Your task to perform on an android device: allow cookies in the chrome app Image 0: 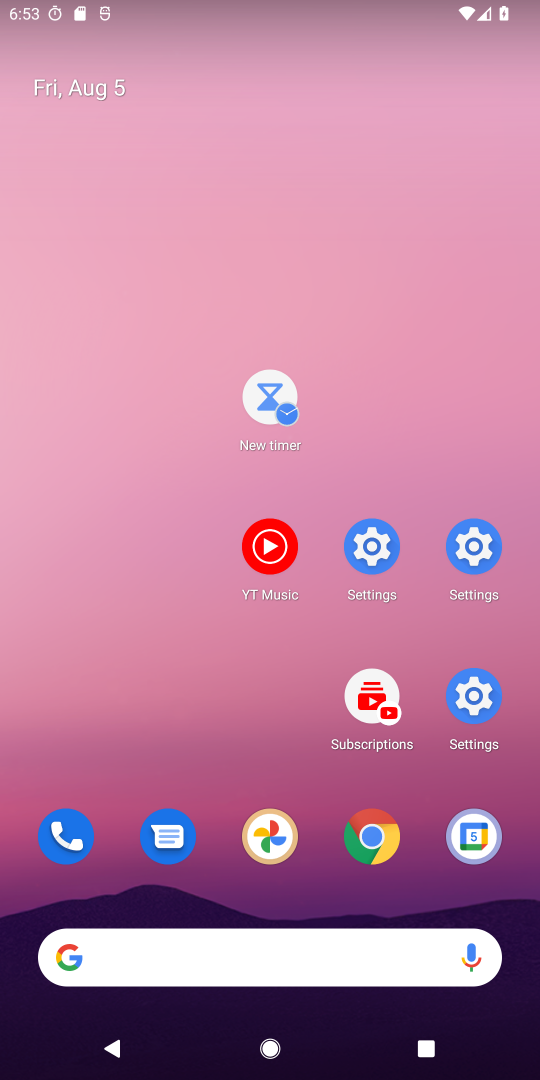
Step 0: click (73, 297)
Your task to perform on an android device: allow cookies in the chrome app Image 1: 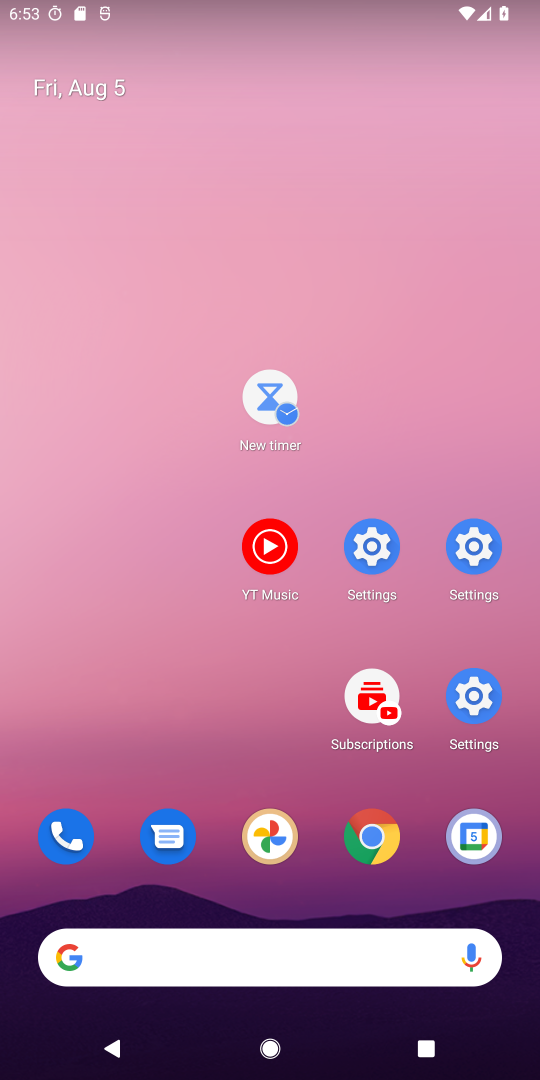
Step 1: drag from (266, 805) to (105, 255)
Your task to perform on an android device: allow cookies in the chrome app Image 2: 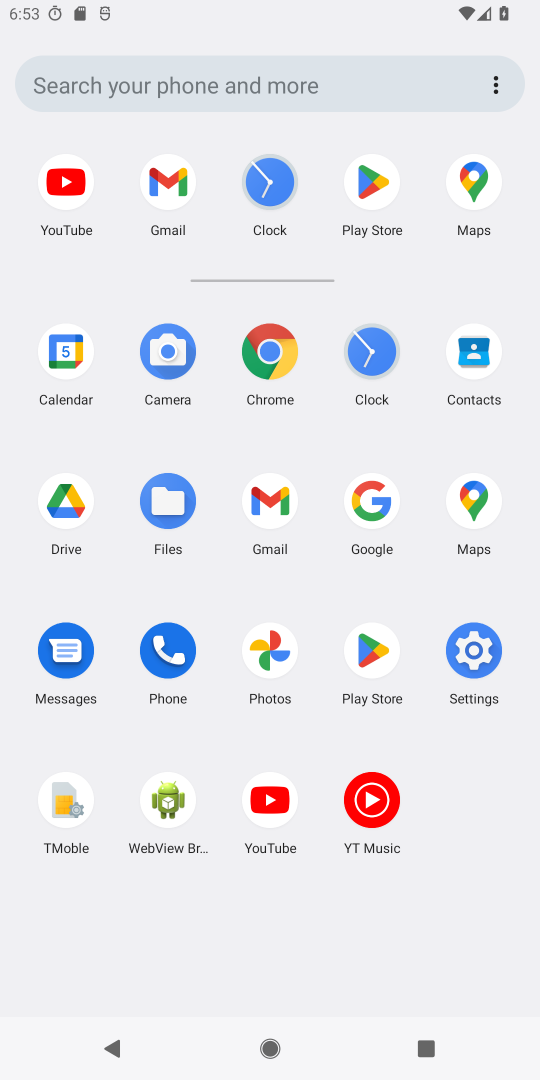
Step 2: click (271, 345)
Your task to perform on an android device: allow cookies in the chrome app Image 3: 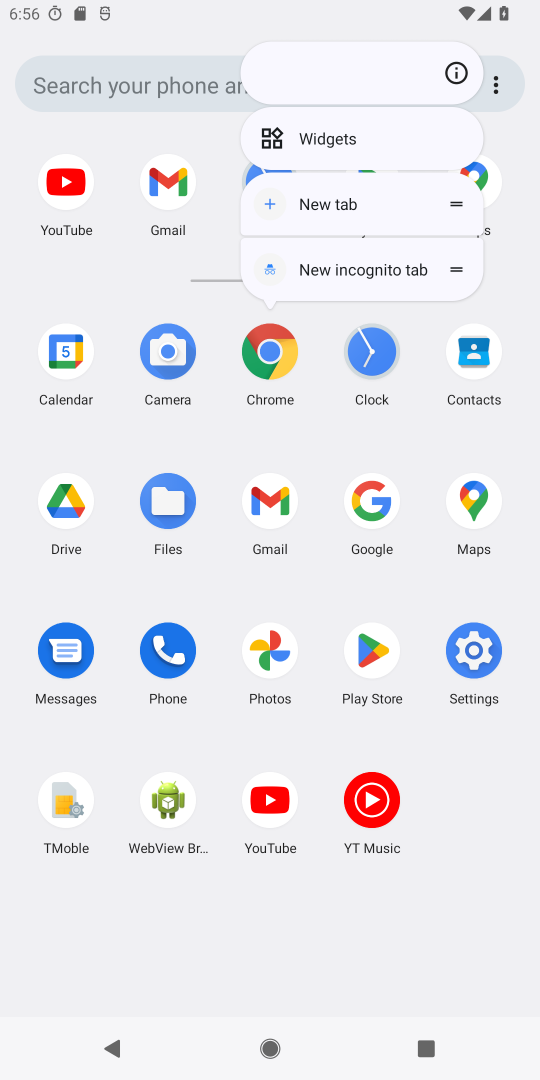
Step 3: drag from (207, 138) to (218, 46)
Your task to perform on an android device: allow cookies in the chrome app Image 4: 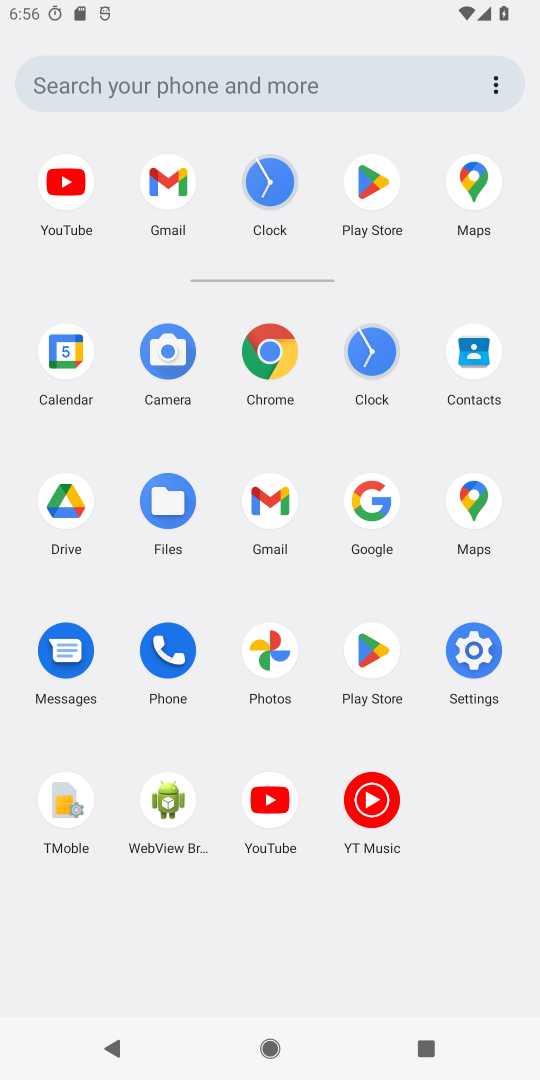
Step 4: click (217, 48)
Your task to perform on an android device: allow cookies in the chrome app Image 5: 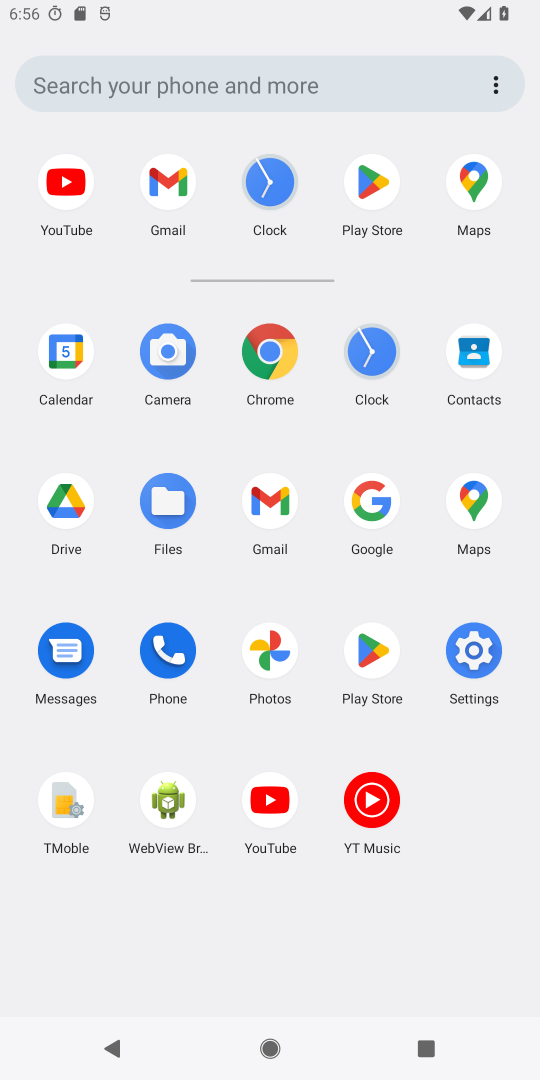
Step 5: click (296, 357)
Your task to perform on an android device: allow cookies in the chrome app Image 6: 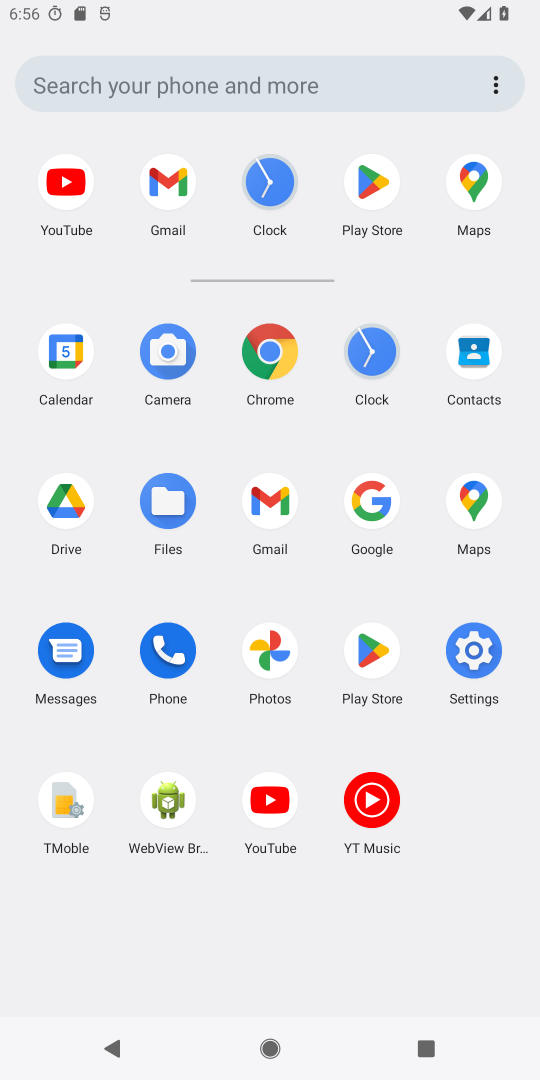
Step 6: click (279, 356)
Your task to perform on an android device: allow cookies in the chrome app Image 7: 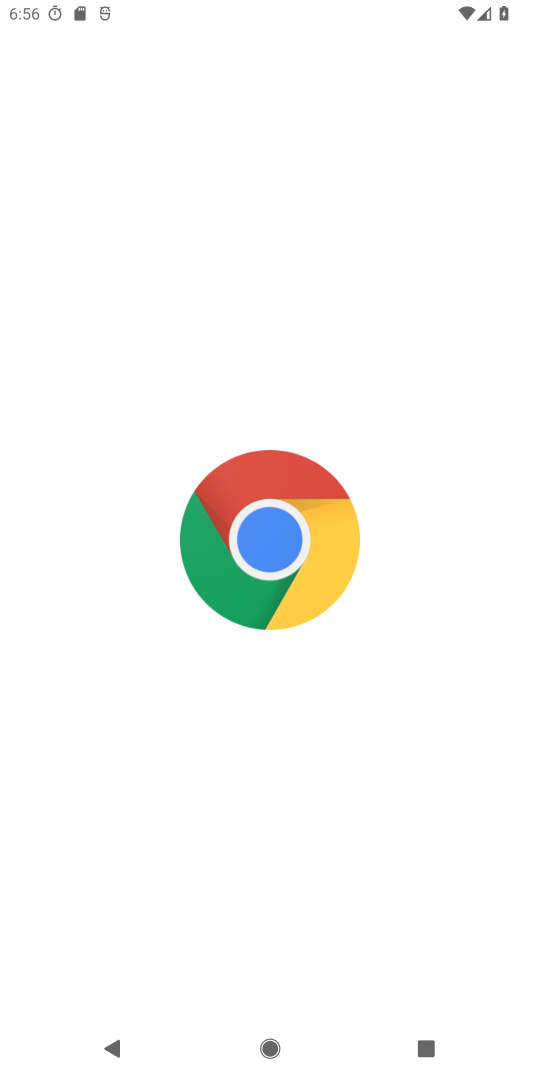
Step 7: click (270, 362)
Your task to perform on an android device: allow cookies in the chrome app Image 8: 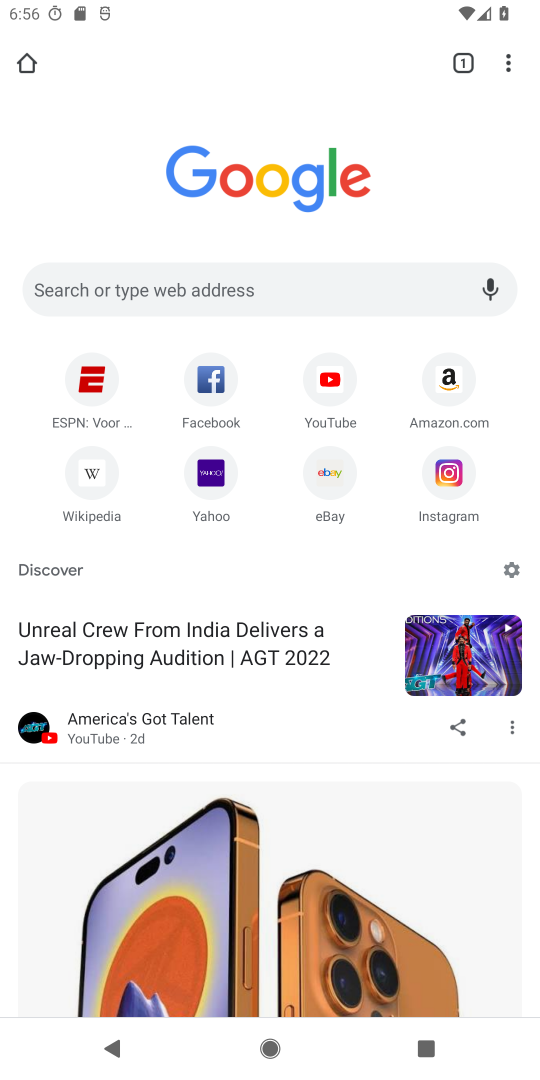
Step 8: drag from (509, 49) to (357, 703)
Your task to perform on an android device: allow cookies in the chrome app Image 9: 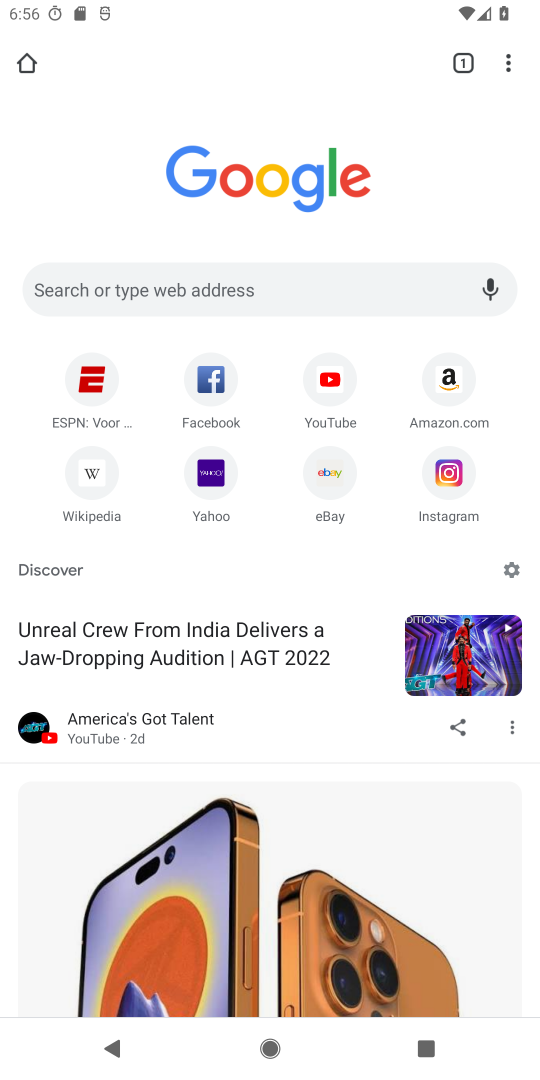
Step 9: drag from (505, 67) to (328, 521)
Your task to perform on an android device: allow cookies in the chrome app Image 10: 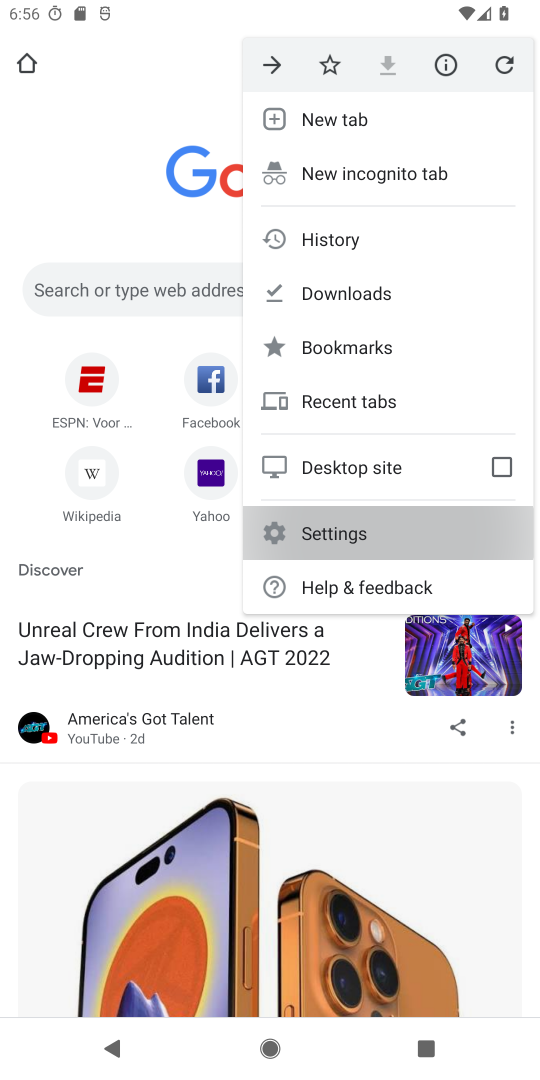
Step 10: click (330, 520)
Your task to perform on an android device: allow cookies in the chrome app Image 11: 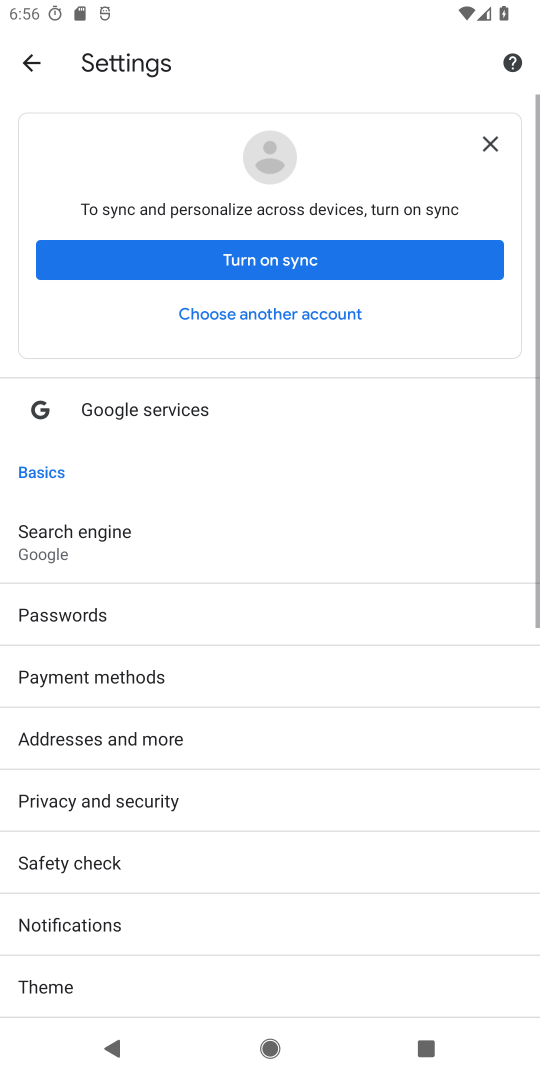
Step 11: drag from (234, 763) to (120, 248)
Your task to perform on an android device: allow cookies in the chrome app Image 12: 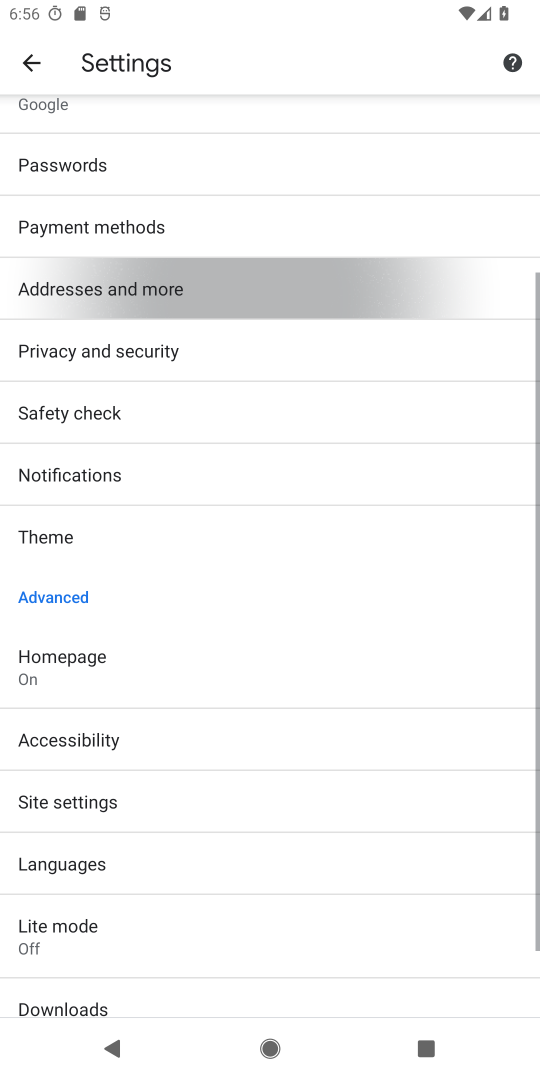
Step 12: drag from (135, 843) to (150, 470)
Your task to perform on an android device: allow cookies in the chrome app Image 13: 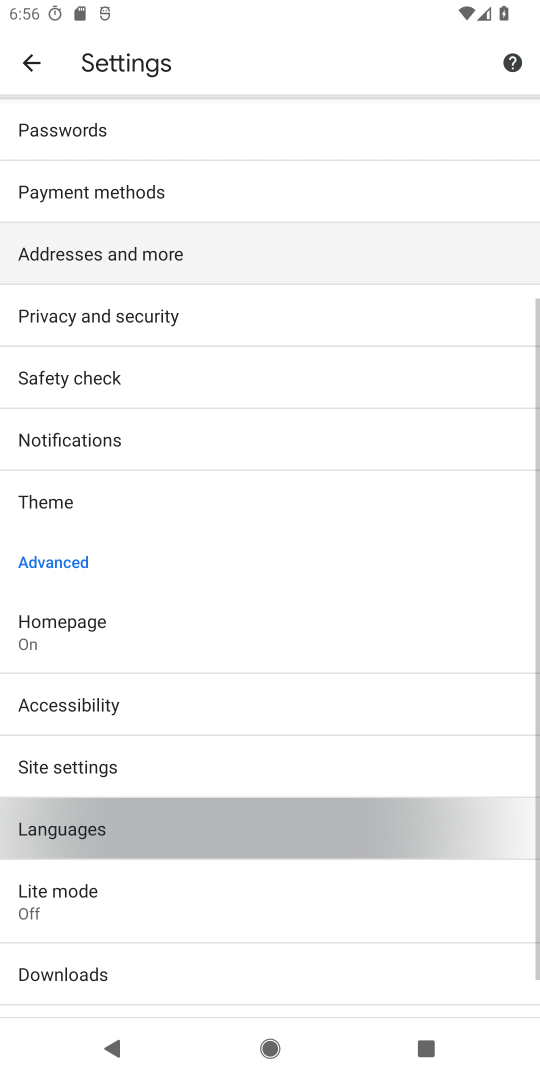
Step 13: drag from (219, 898) to (237, 554)
Your task to perform on an android device: allow cookies in the chrome app Image 14: 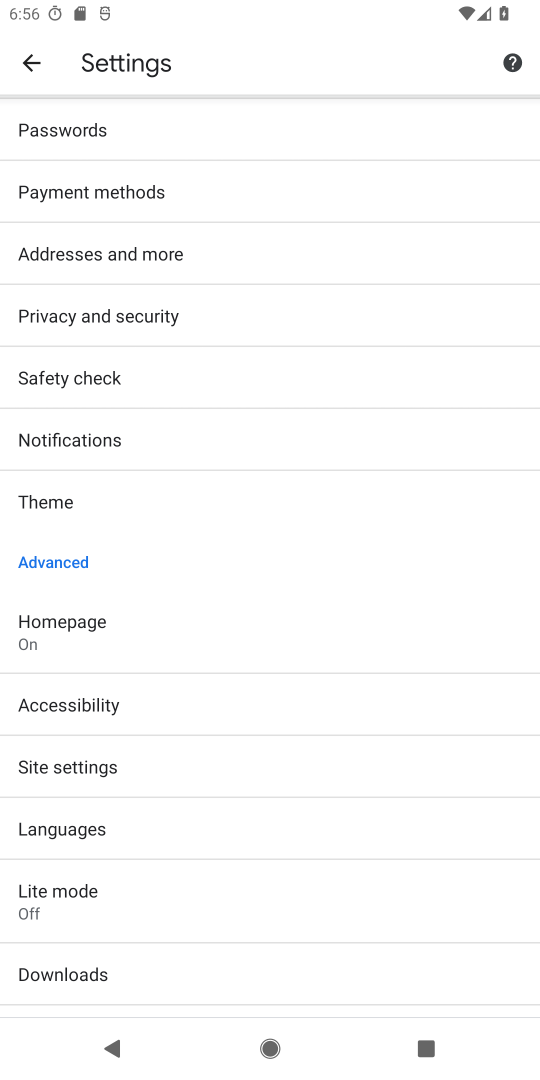
Step 14: click (41, 766)
Your task to perform on an android device: allow cookies in the chrome app Image 15: 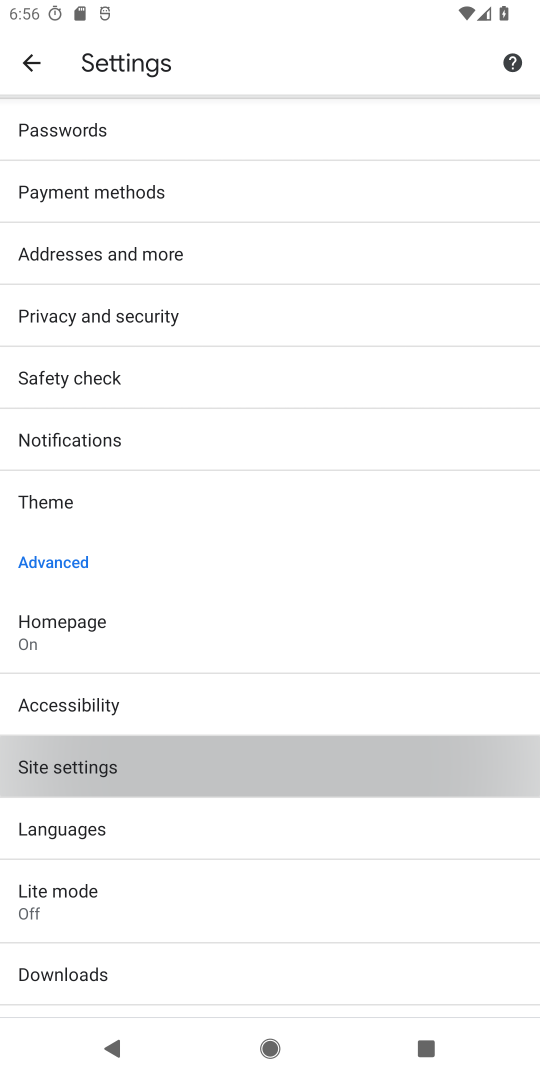
Step 15: click (44, 766)
Your task to perform on an android device: allow cookies in the chrome app Image 16: 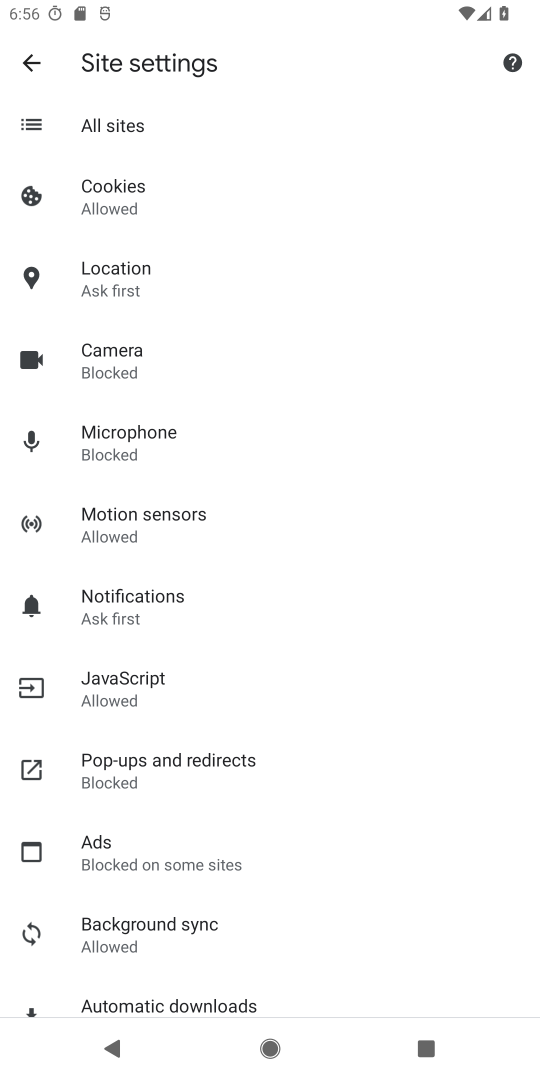
Step 16: drag from (95, 185) to (190, 293)
Your task to perform on an android device: allow cookies in the chrome app Image 17: 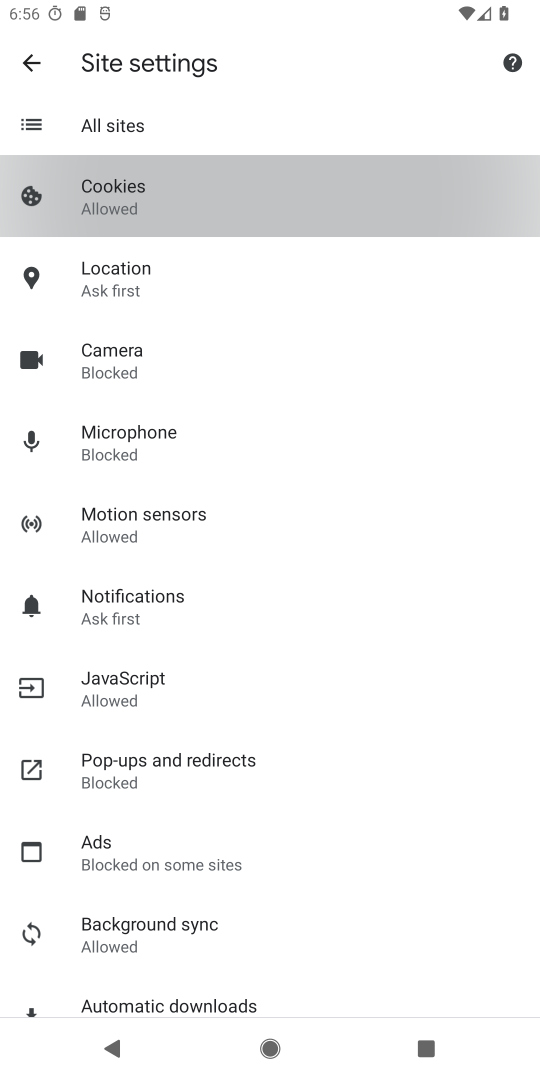
Step 17: click (113, 195)
Your task to perform on an android device: allow cookies in the chrome app Image 18: 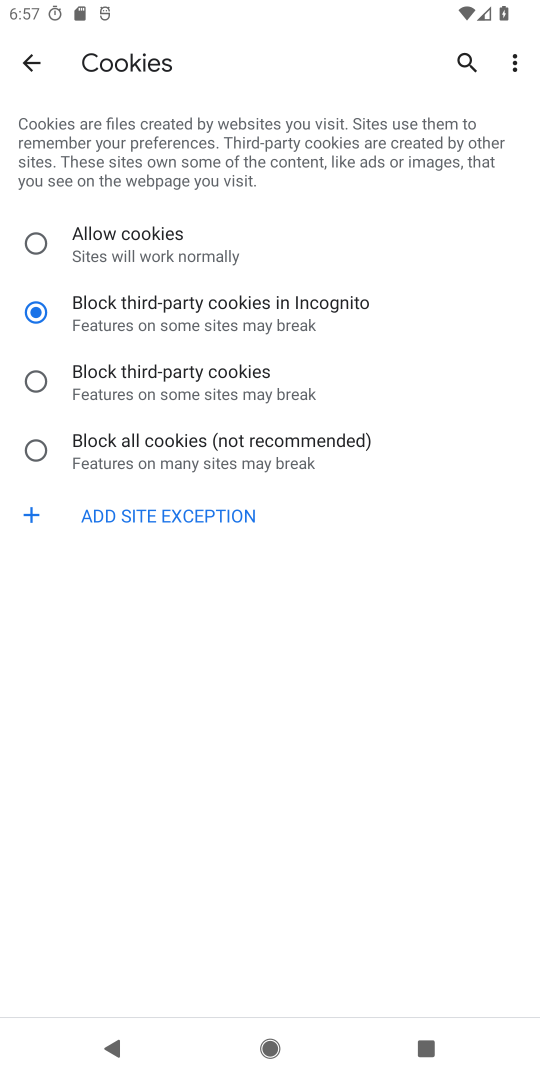
Step 18: click (21, 72)
Your task to perform on an android device: allow cookies in the chrome app Image 19: 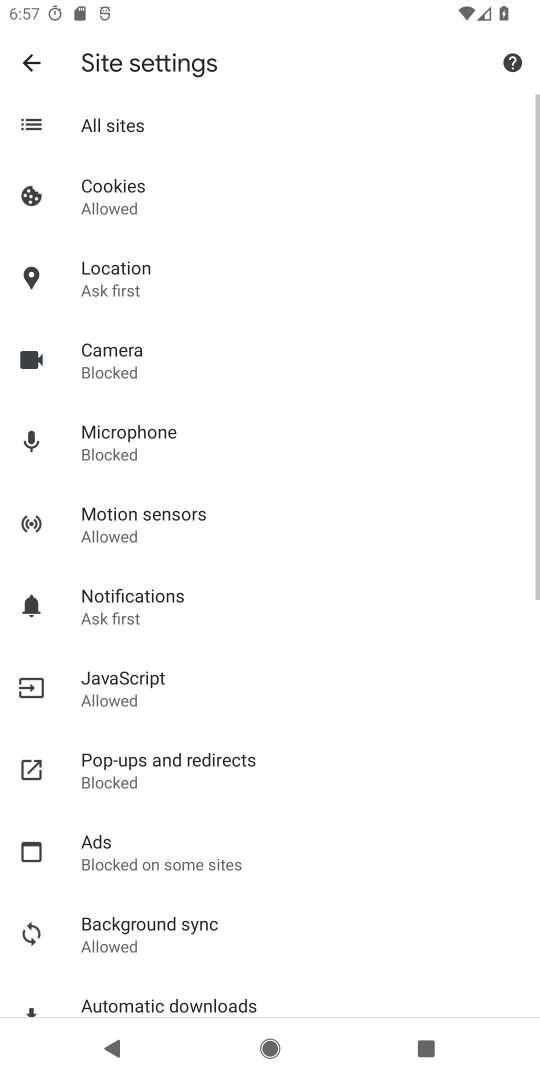
Step 19: task complete